Your task to perform on an android device: turn off javascript in the chrome app Image 0: 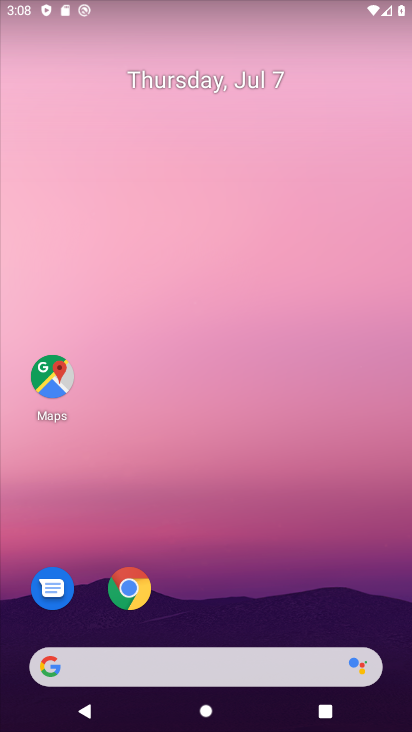
Step 0: click (141, 178)
Your task to perform on an android device: turn off javascript in the chrome app Image 1: 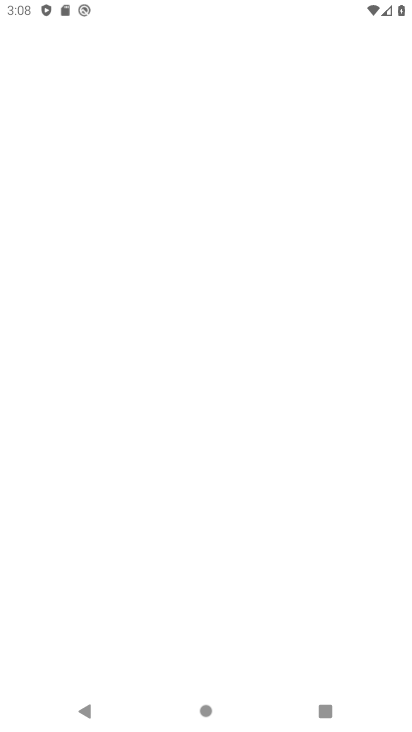
Step 1: drag from (225, 578) to (128, 153)
Your task to perform on an android device: turn off javascript in the chrome app Image 2: 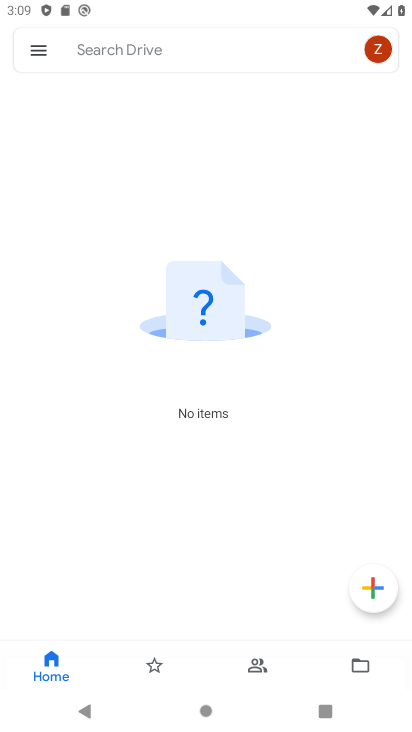
Step 2: press back button
Your task to perform on an android device: turn off javascript in the chrome app Image 3: 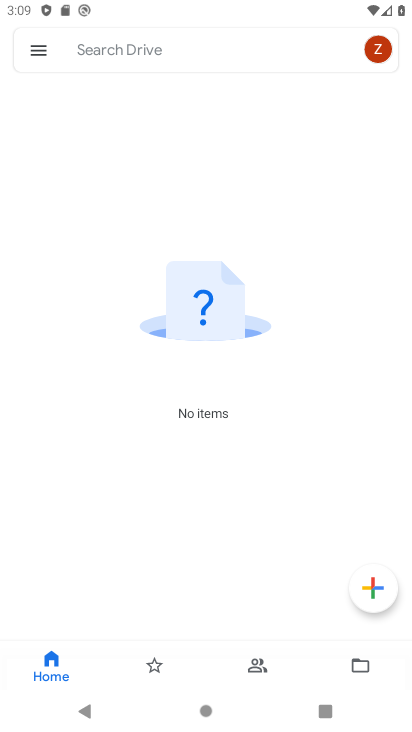
Step 3: press back button
Your task to perform on an android device: turn off javascript in the chrome app Image 4: 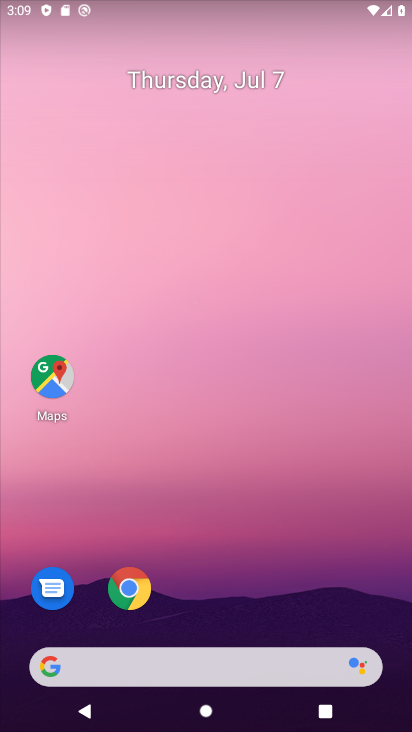
Step 4: drag from (276, 683) to (105, 82)
Your task to perform on an android device: turn off javascript in the chrome app Image 5: 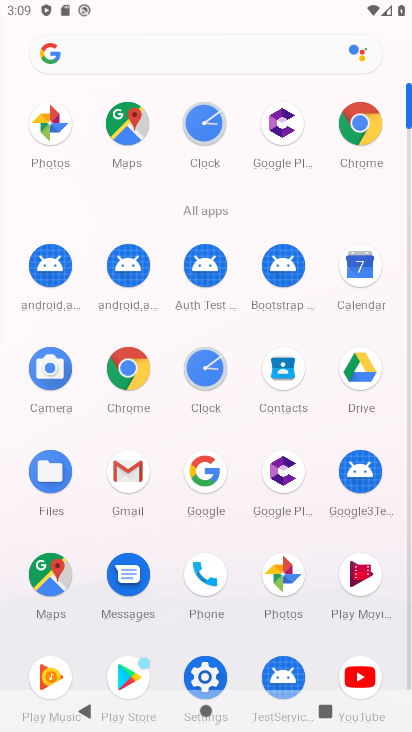
Step 5: click (120, 349)
Your task to perform on an android device: turn off javascript in the chrome app Image 6: 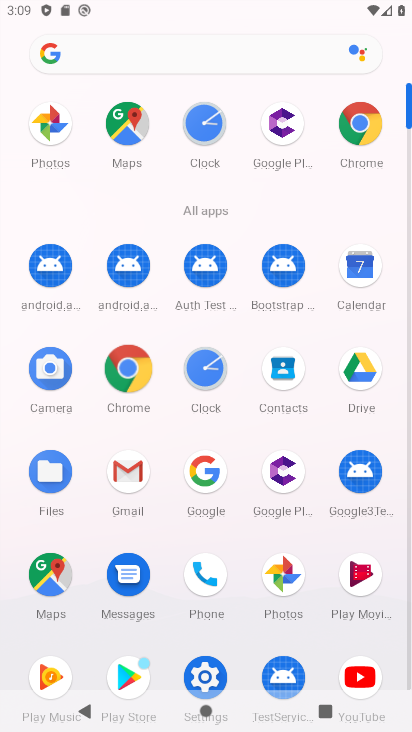
Step 6: click (127, 350)
Your task to perform on an android device: turn off javascript in the chrome app Image 7: 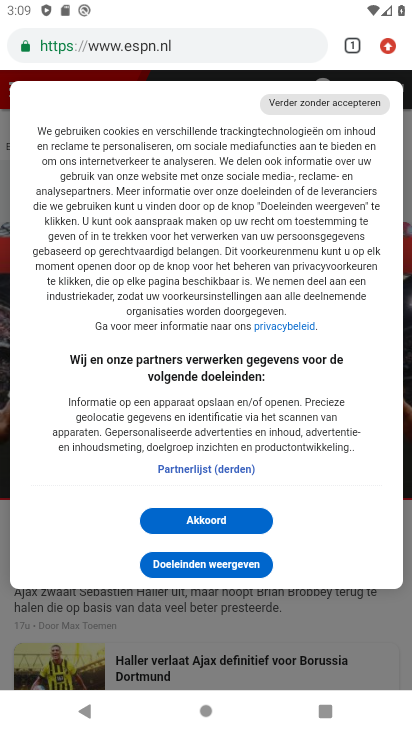
Step 7: click (77, 620)
Your task to perform on an android device: turn off javascript in the chrome app Image 8: 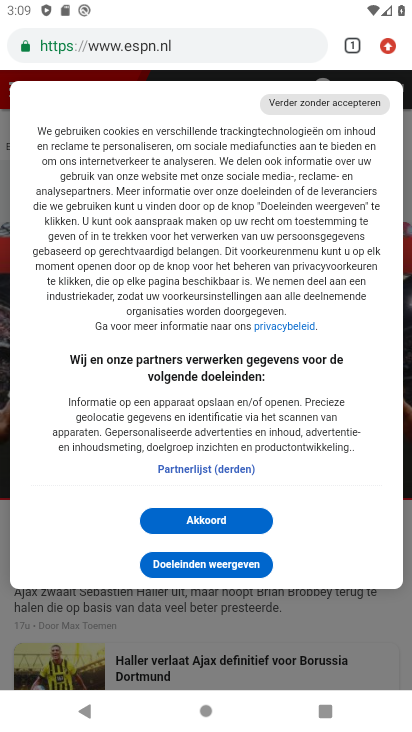
Step 8: click (76, 621)
Your task to perform on an android device: turn off javascript in the chrome app Image 9: 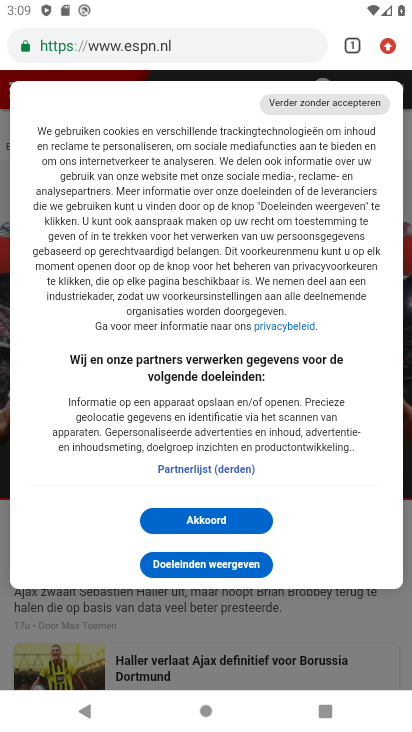
Step 9: click (76, 621)
Your task to perform on an android device: turn off javascript in the chrome app Image 10: 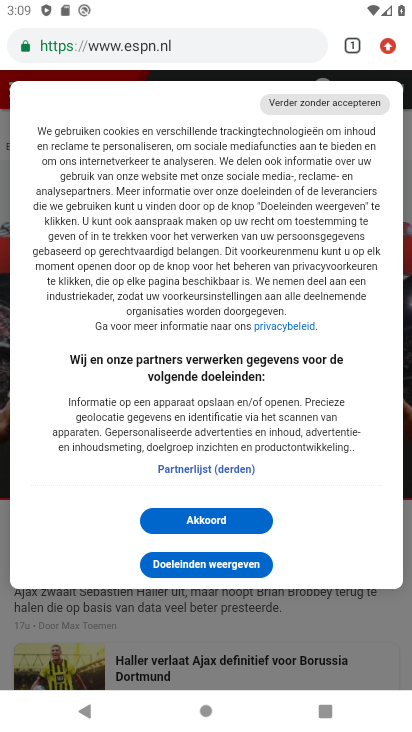
Step 10: click (76, 621)
Your task to perform on an android device: turn off javascript in the chrome app Image 11: 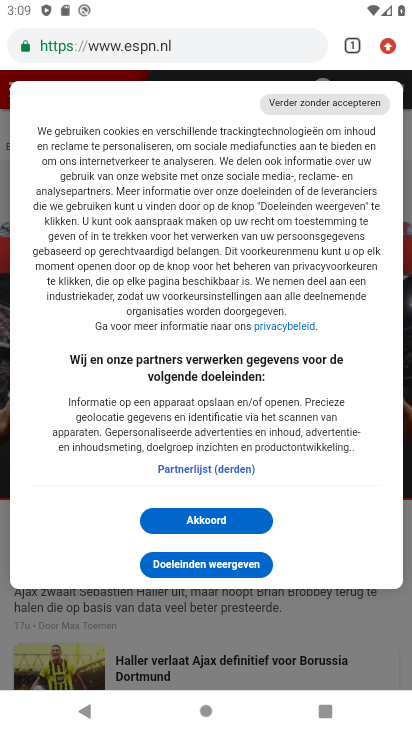
Step 11: click (76, 621)
Your task to perform on an android device: turn off javascript in the chrome app Image 12: 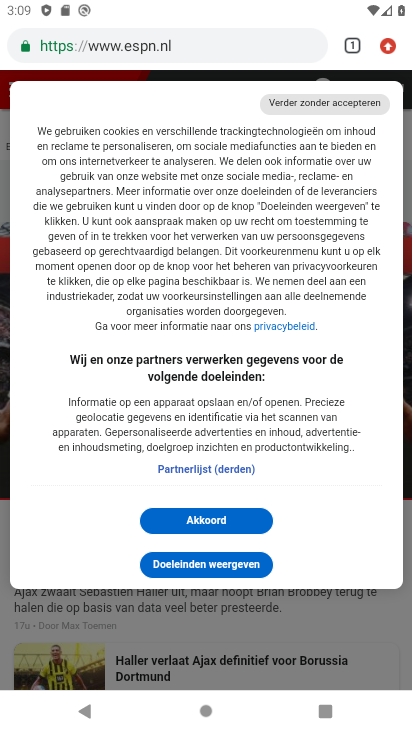
Step 12: click (76, 622)
Your task to perform on an android device: turn off javascript in the chrome app Image 13: 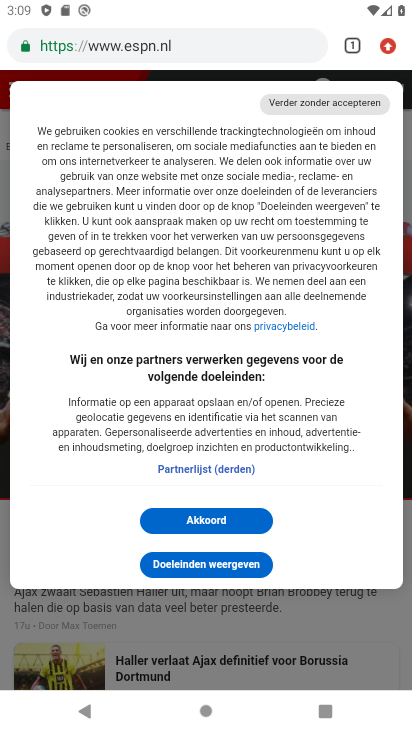
Step 13: click (76, 622)
Your task to perform on an android device: turn off javascript in the chrome app Image 14: 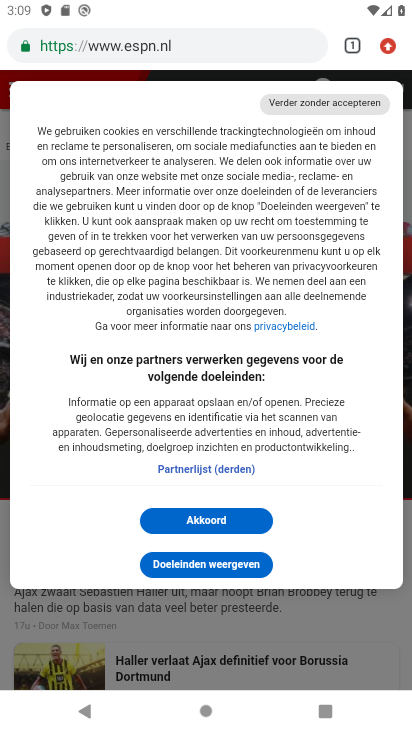
Step 14: click (76, 622)
Your task to perform on an android device: turn off javascript in the chrome app Image 15: 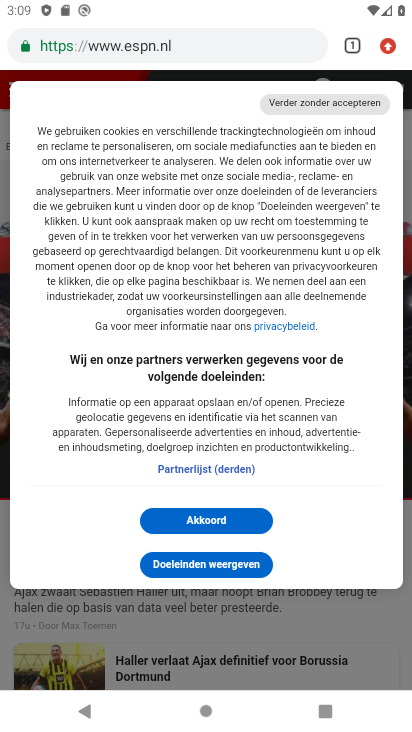
Step 15: click (217, 504)
Your task to perform on an android device: turn off javascript in the chrome app Image 16: 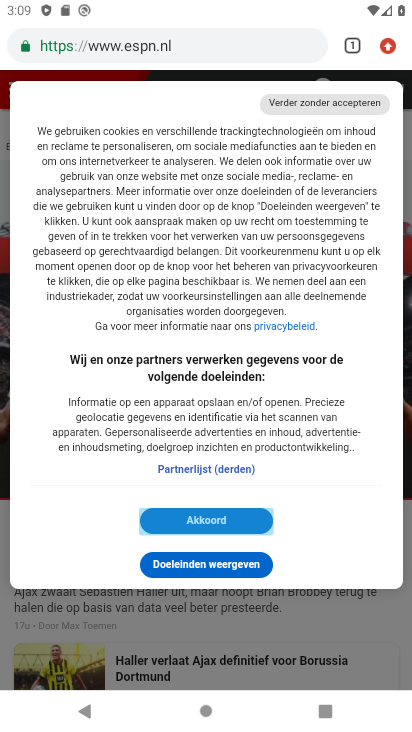
Step 16: click (211, 521)
Your task to perform on an android device: turn off javascript in the chrome app Image 17: 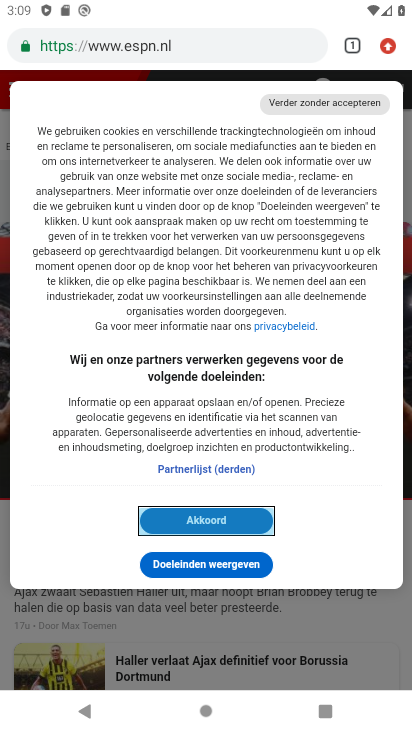
Step 17: click (212, 522)
Your task to perform on an android device: turn off javascript in the chrome app Image 18: 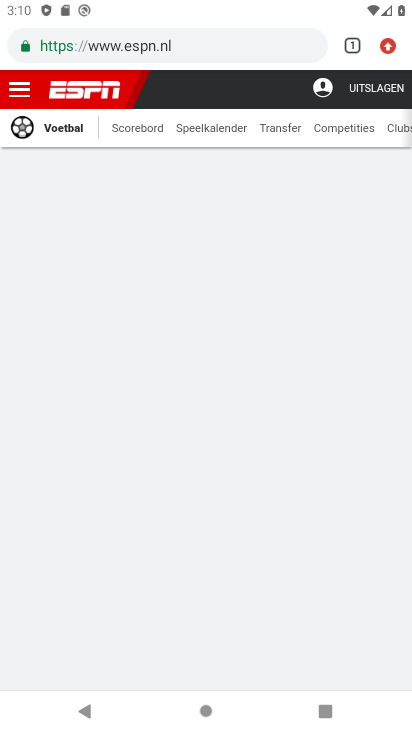
Step 18: click (369, 48)
Your task to perform on an android device: turn off javascript in the chrome app Image 19: 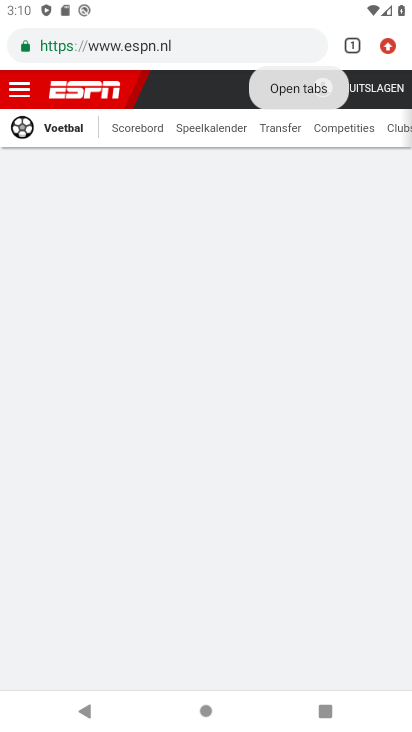
Step 19: click (383, 48)
Your task to perform on an android device: turn off javascript in the chrome app Image 20: 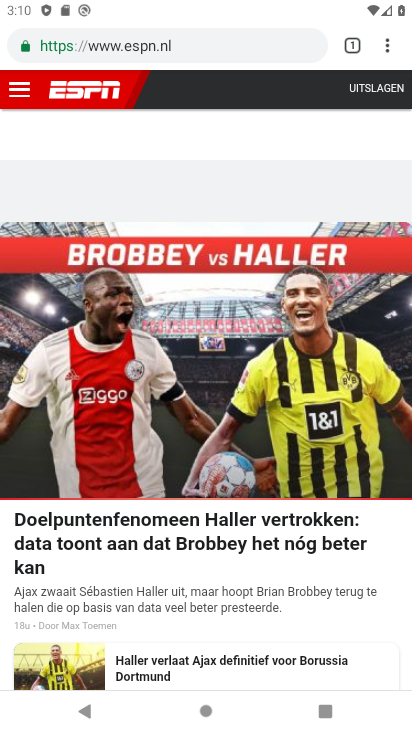
Step 20: click (390, 47)
Your task to perform on an android device: turn off javascript in the chrome app Image 21: 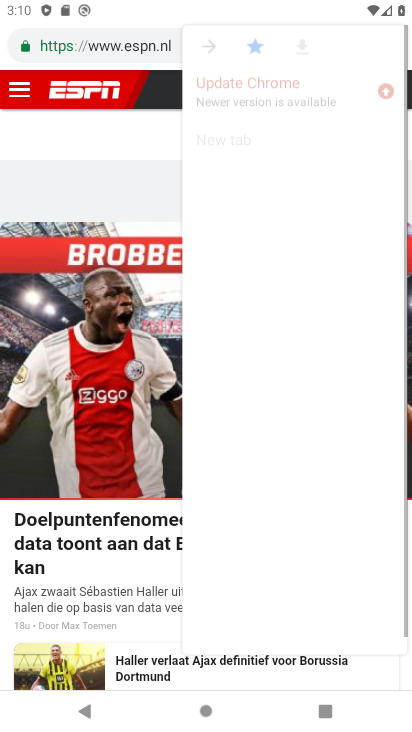
Step 21: click (390, 47)
Your task to perform on an android device: turn off javascript in the chrome app Image 22: 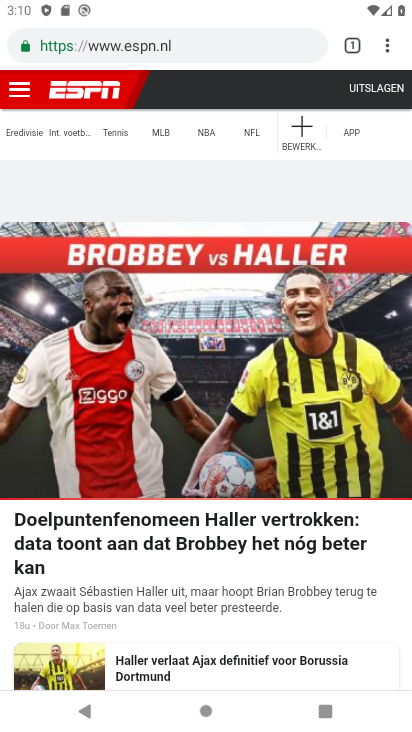
Step 22: click (386, 55)
Your task to perform on an android device: turn off javascript in the chrome app Image 23: 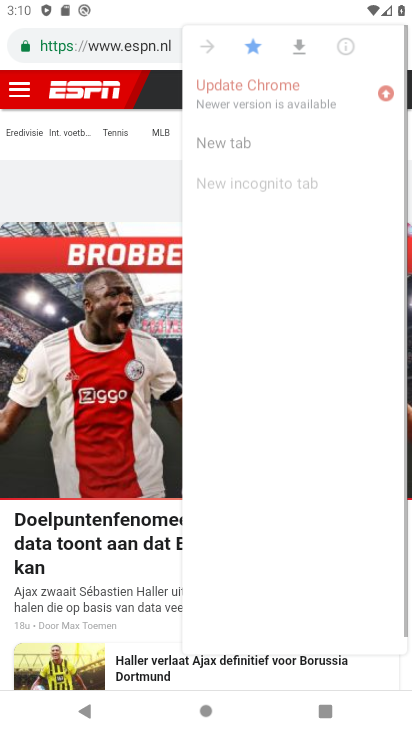
Step 23: click (386, 54)
Your task to perform on an android device: turn off javascript in the chrome app Image 24: 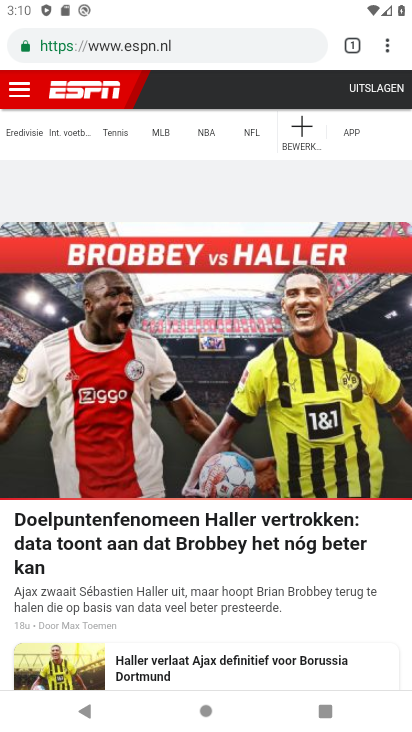
Step 24: drag from (386, 54) to (232, 605)
Your task to perform on an android device: turn off javascript in the chrome app Image 25: 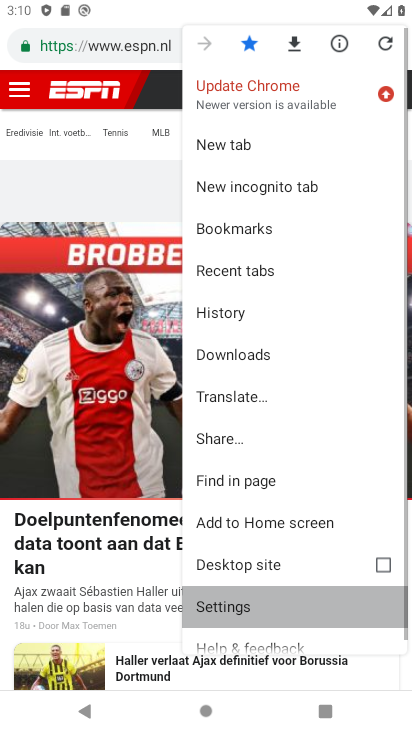
Step 25: click (232, 605)
Your task to perform on an android device: turn off javascript in the chrome app Image 26: 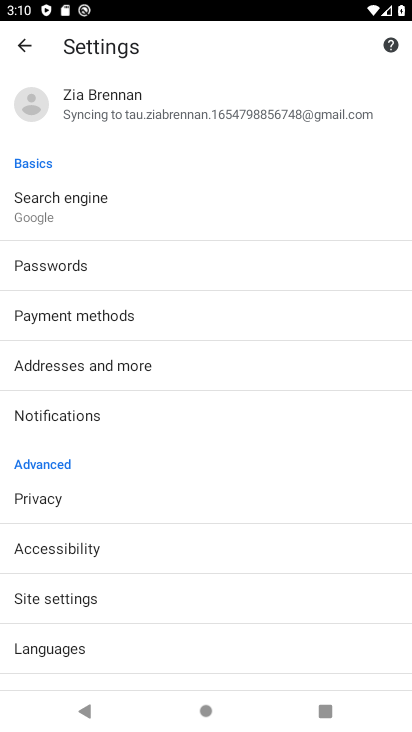
Step 26: drag from (139, 650) to (116, 217)
Your task to perform on an android device: turn off javascript in the chrome app Image 27: 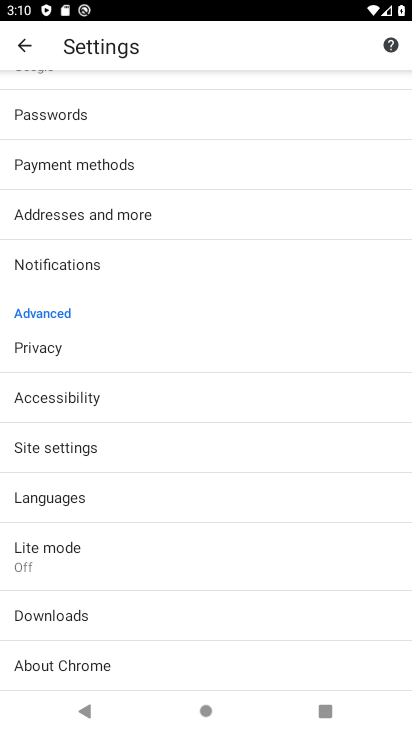
Step 27: click (41, 448)
Your task to perform on an android device: turn off javascript in the chrome app Image 28: 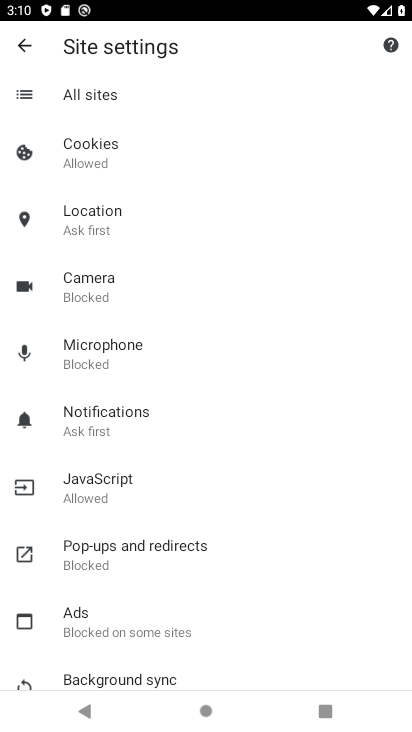
Step 28: click (85, 471)
Your task to perform on an android device: turn off javascript in the chrome app Image 29: 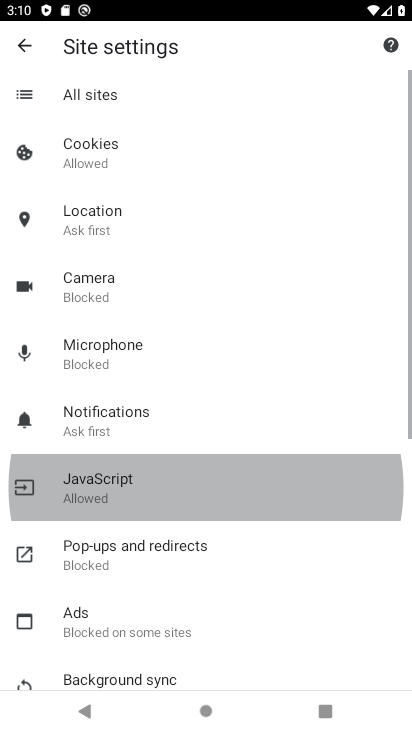
Step 29: click (85, 481)
Your task to perform on an android device: turn off javascript in the chrome app Image 30: 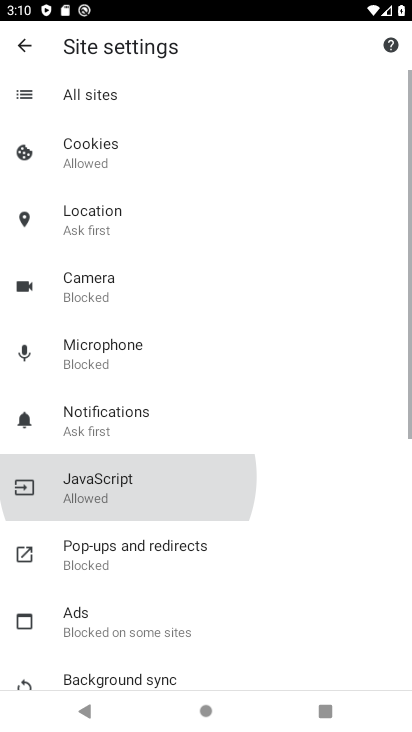
Step 30: click (85, 481)
Your task to perform on an android device: turn off javascript in the chrome app Image 31: 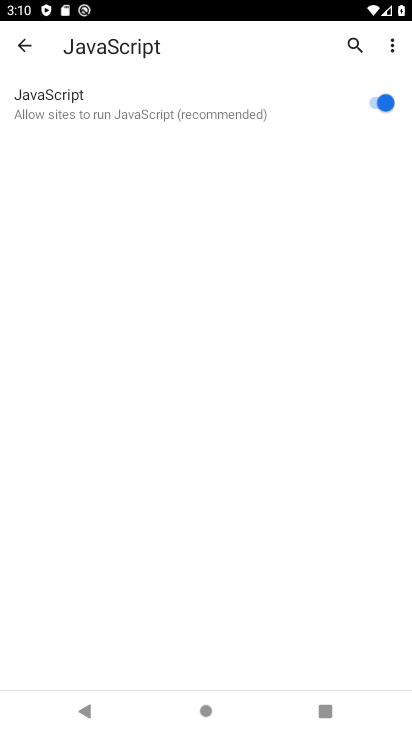
Step 31: click (379, 100)
Your task to perform on an android device: turn off javascript in the chrome app Image 32: 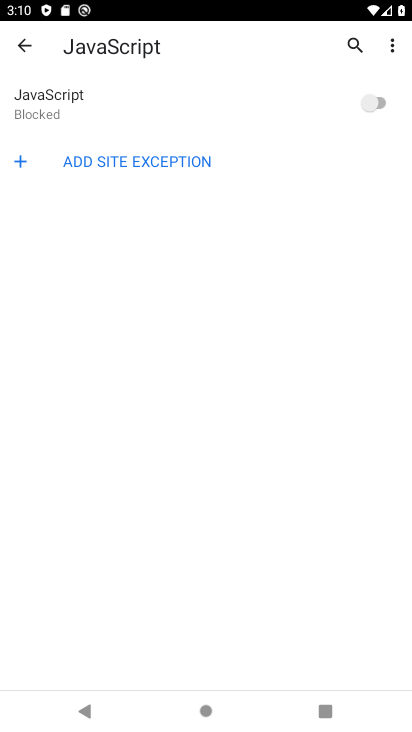
Step 32: task complete